Your task to perform on an android device: Open Chrome and go to settings Image 0: 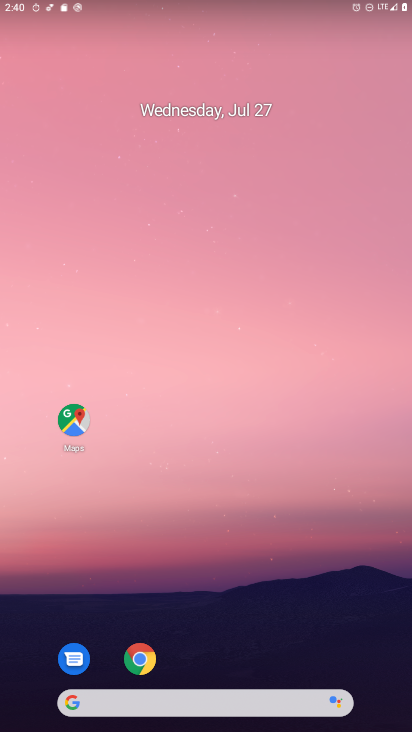
Step 0: drag from (301, 617) to (291, 87)
Your task to perform on an android device: Open Chrome and go to settings Image 1: 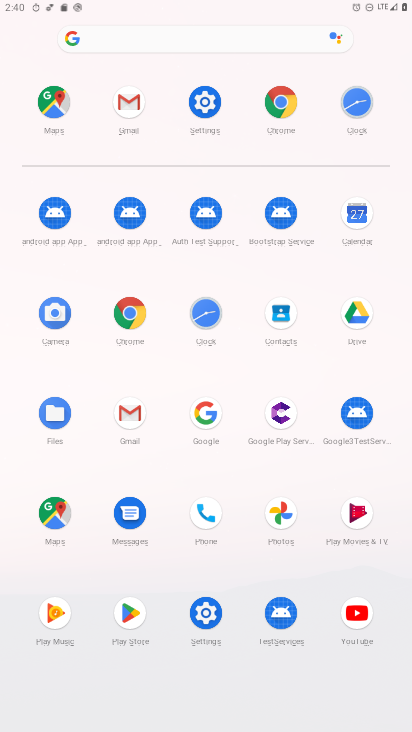
Step 1: click (275, 101)
Your task to perform on an android device: Open Chrome and go to settings Image 2: 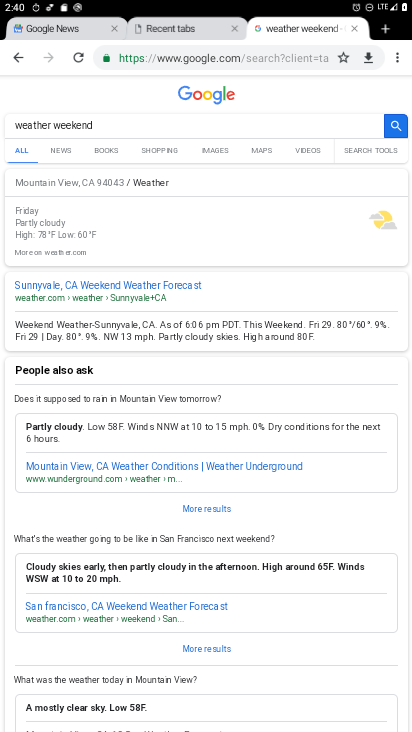
Step 2: task complete